Your task to perform on an android device: Open wifi settings Image 0: 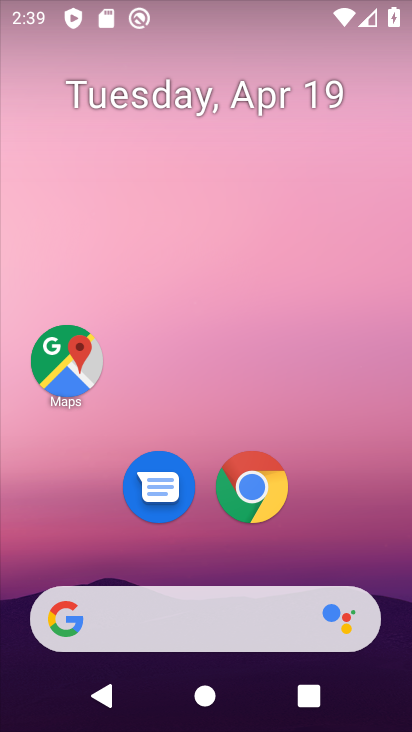
Step 0: drag from (141, 28) to (141, 580)
Your task to perform on an android device: Open wifi settings Image 1: 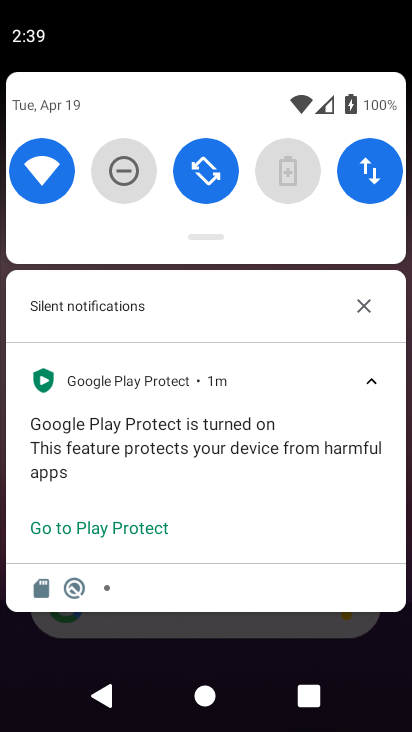
Step 1: click (56, 162)
Your task to perform on an android device: Open wifi settings Image 2: 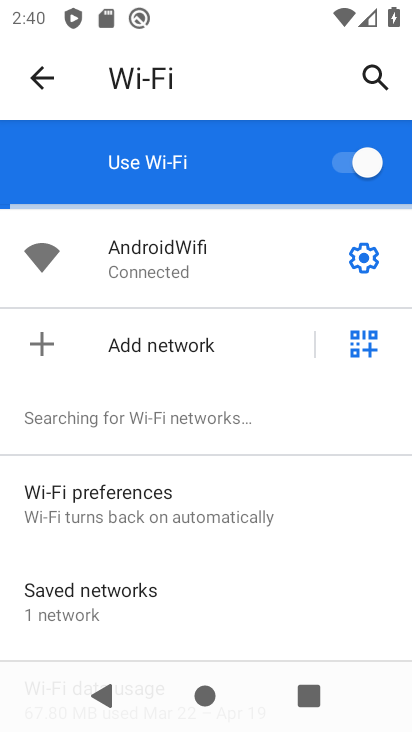
Step 2: task complete